Your task to perform on an android device: uninstall "Mercado Libre" Image 0: 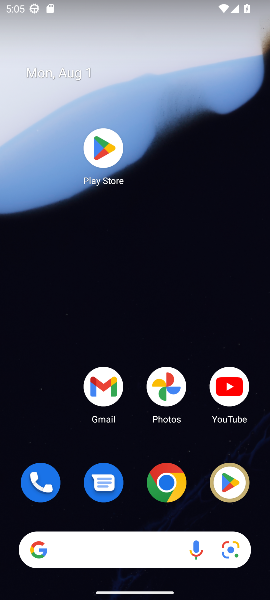
Step 0: click (102, 150)
Your task to perform on an android device: uninstall "Mercado Libre" Image 1: 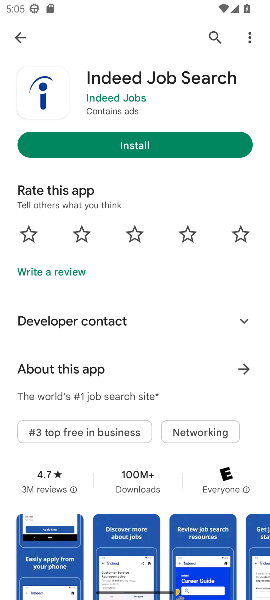
Step 1: click (213, 33)
Your task to perform on an android device: uninstall "Mercado Libre" Image 2: 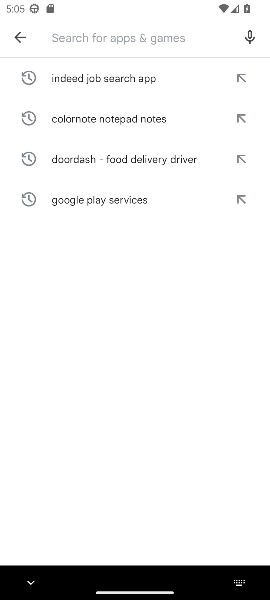
Step 2: type "Mercado Libre"
Your task to perform on an android device: uninstall "Mercado Libre" Image 3: 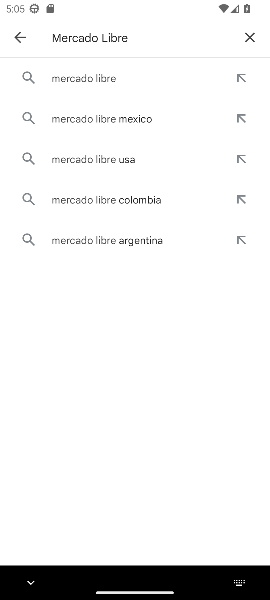
Step 3: click (86, 80)
Your task to perform on an android device: uninstall "Mercado Libre" Image 4: 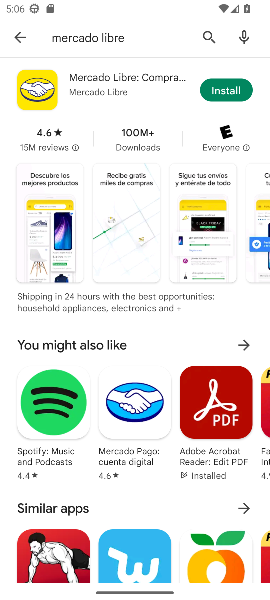
Step 4: task complete